Your task to perform on an android device: Show me recent news Image 0: 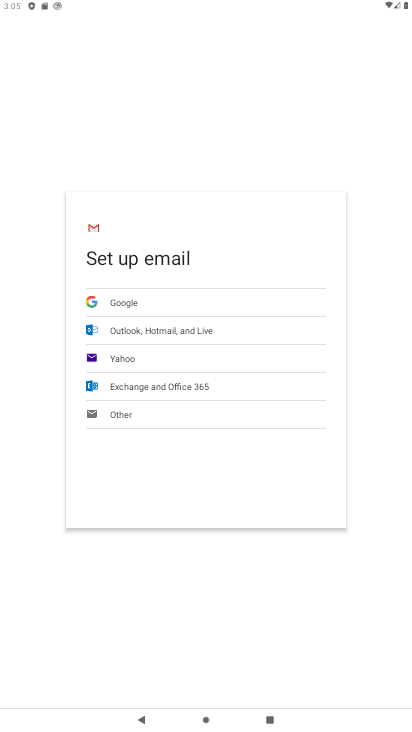
Step 0: press home button
Your task to perform on an android device: Show me recent news Image 1: 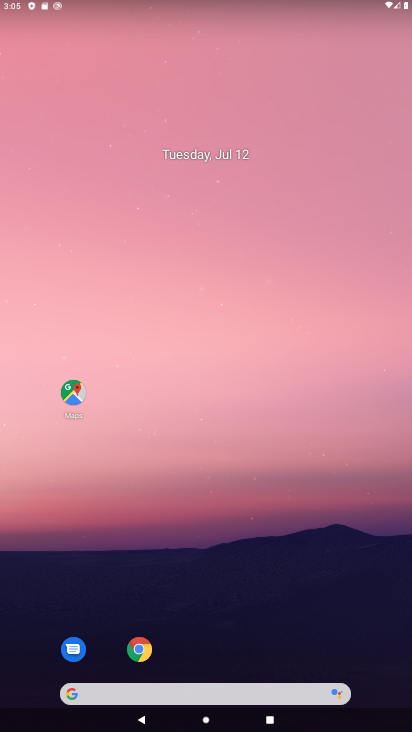
Step 1: task complete